Your task to perform on an android device: Clear all items from cart on amazon. Search for lg ultragear on amazon, select the first entry, and add it to the cart. Image 0: 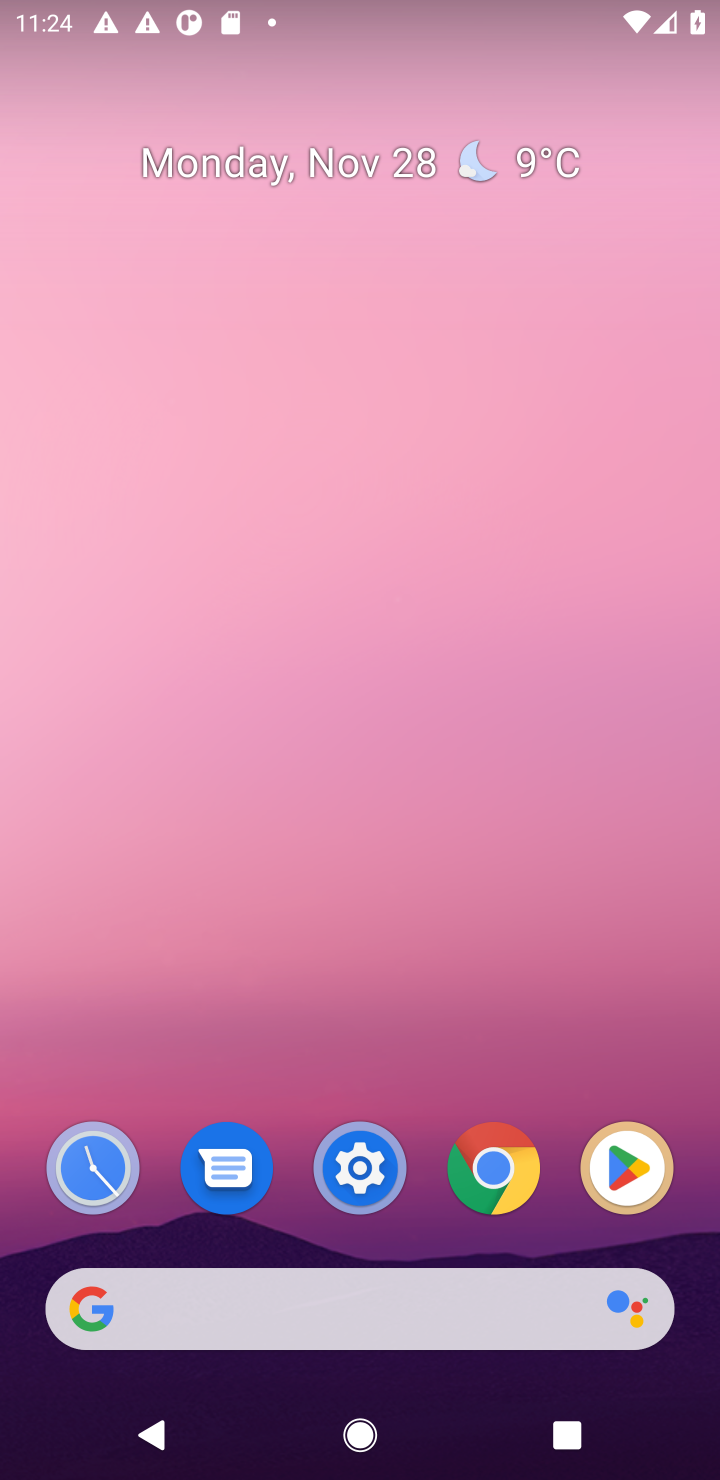
Step 0: click (330, 1302)
Your task to perform on an android device: Clear all items from cart on amazon. Search for lg ultragear on amazon, select the first entry, and add it to the cart. Image 1: 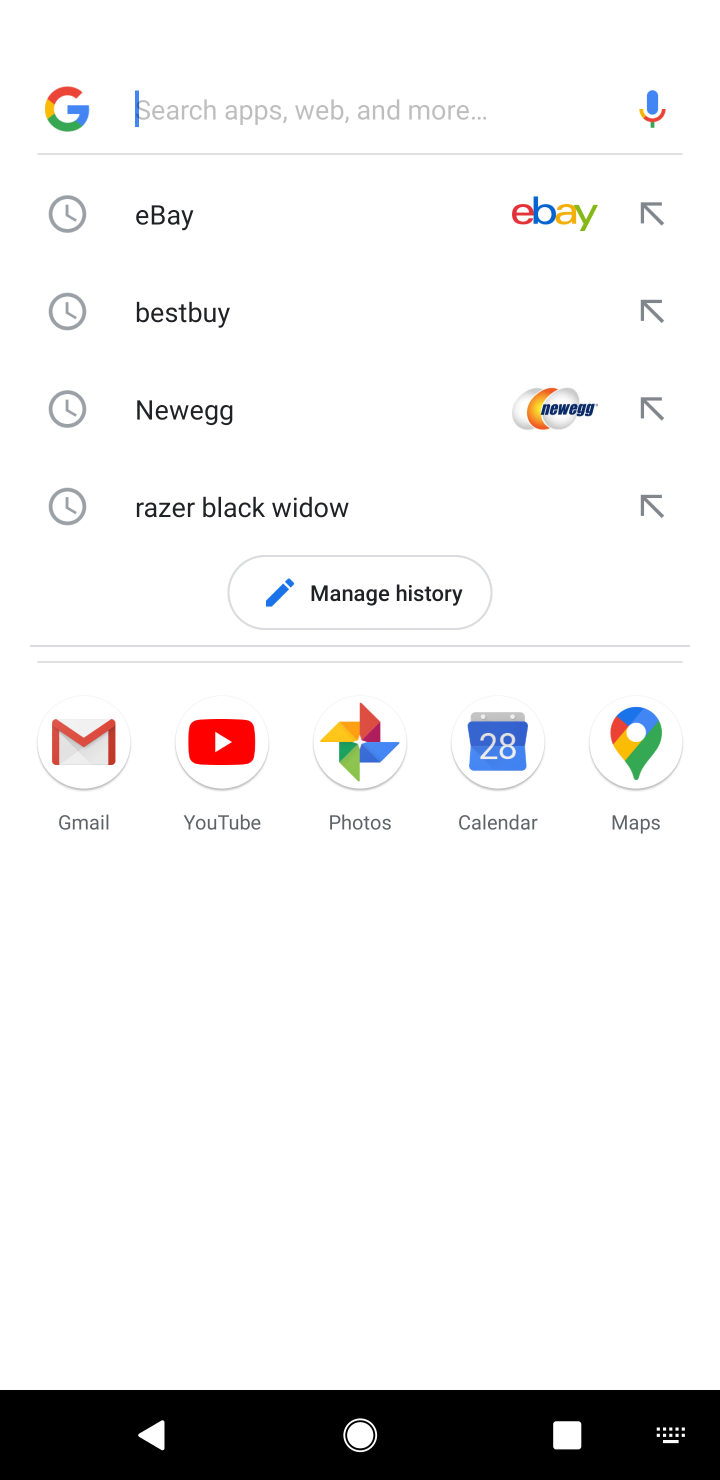
Step 1: click (242, 239)
Your task to perform on an android device: Clear all items from cart on amazon. Search for lg ultragear on amazon, select the first entry, and add it to the cart. Image 2: 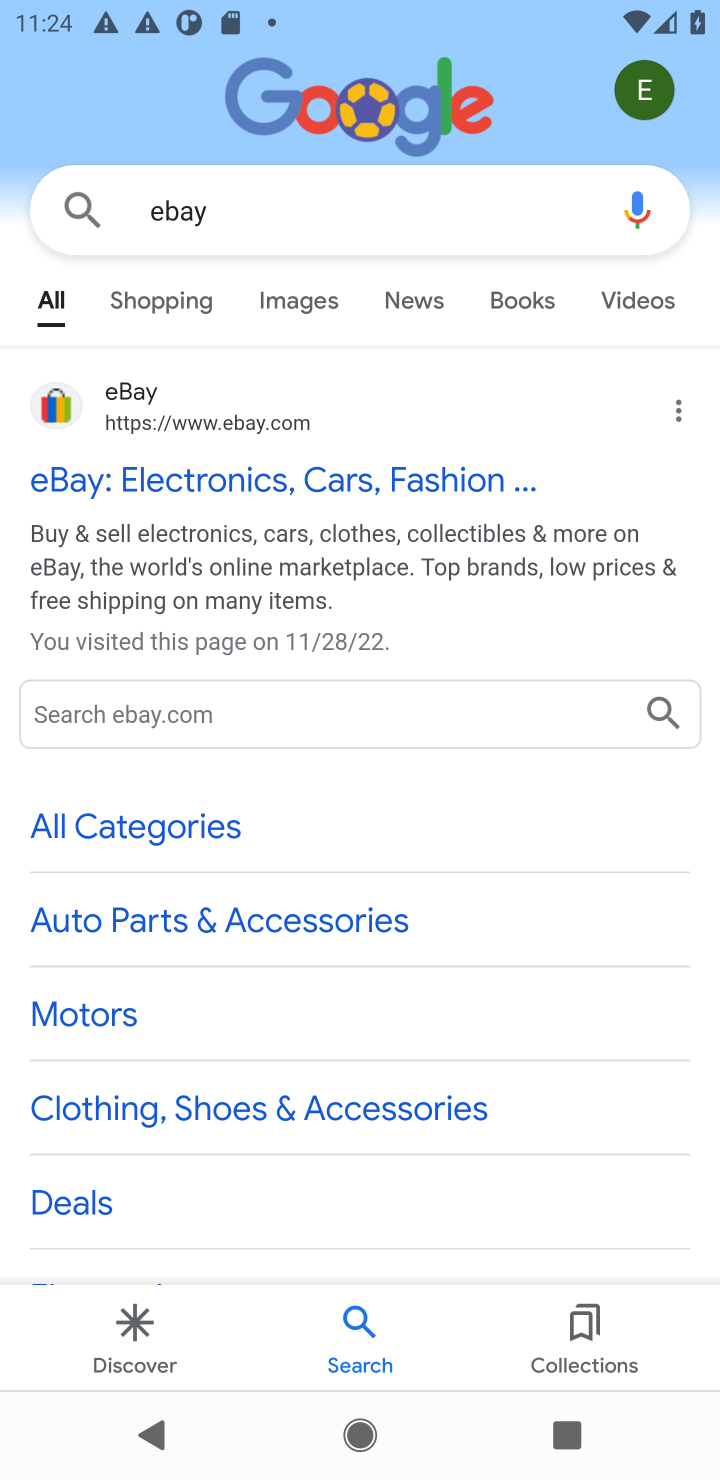
Step 2: click (273, 467)
Your task to perform on an android device: Clear all items from cart on amazon. Search for lg ultragear on amazon, select the first entry, and add it to the cart. Image 3: 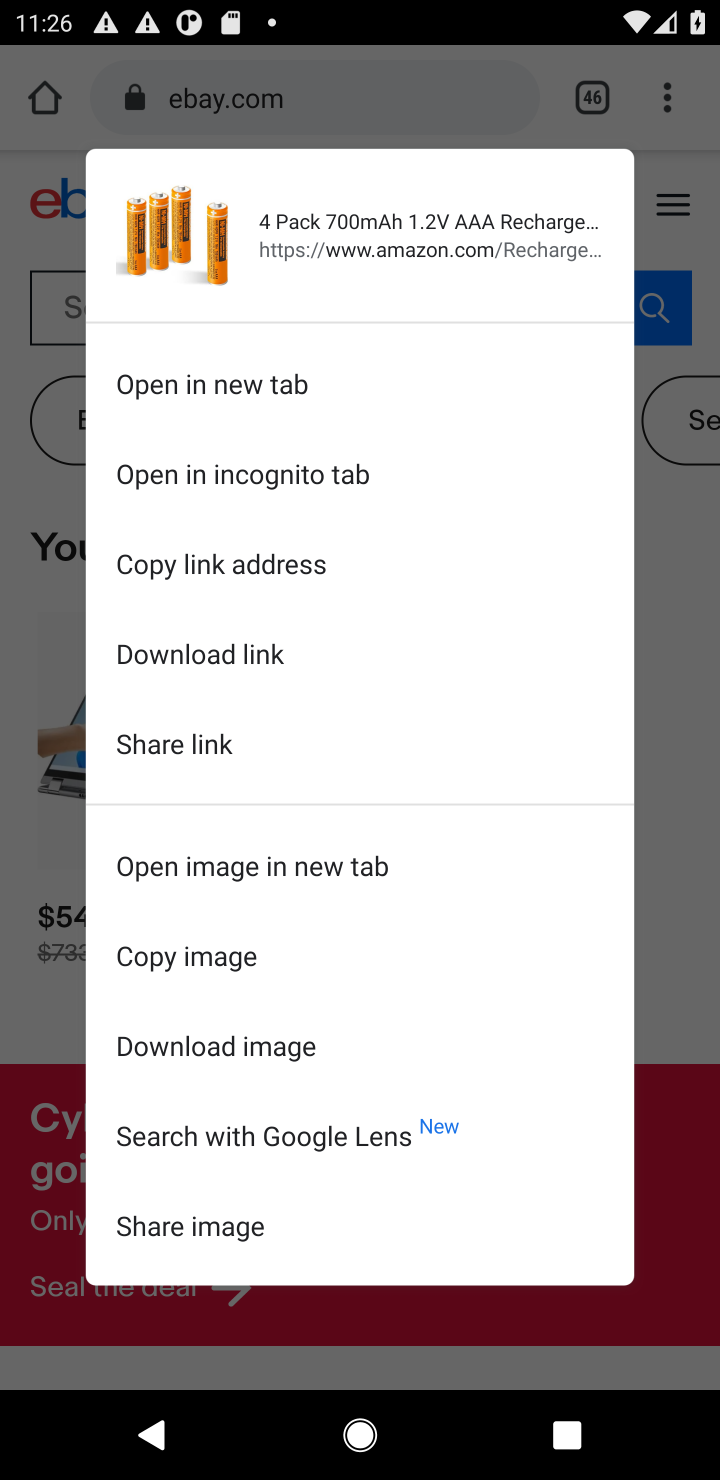
Step 3: task complete